Your task to perform on an android device: Open maps Image 0: 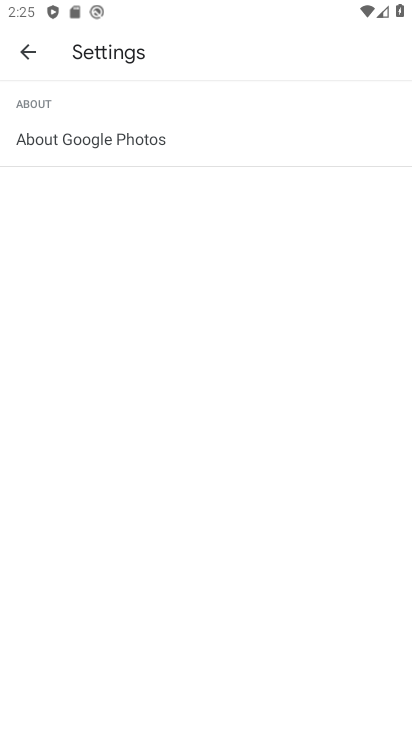
Step 0: press home button
Your task to perform on an android device: Open maps Image 1: 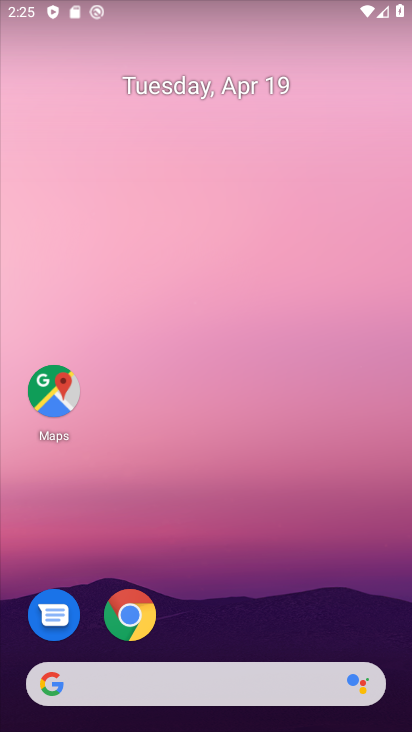
Step 1: drag from (264, 587) to (268, 263)
Your task to perform on an android device: Open maps Image 2: 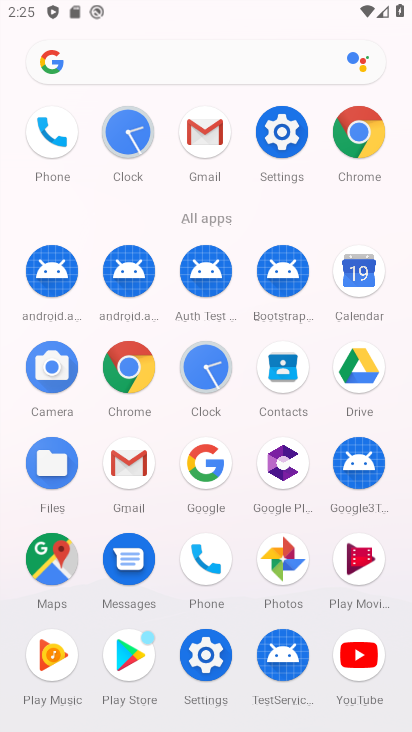
Step 2: click (45, 551)
Your task to perform on an android device: Open maps Image 3: 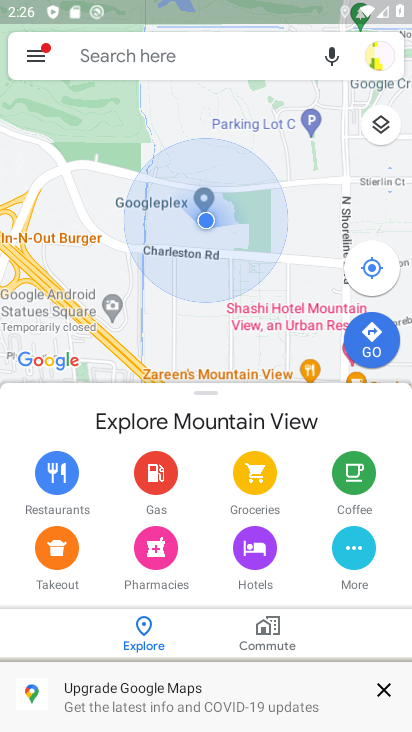
Step 3: task complete